Your task to perform on an android device: Open Reddit.com Image 0: 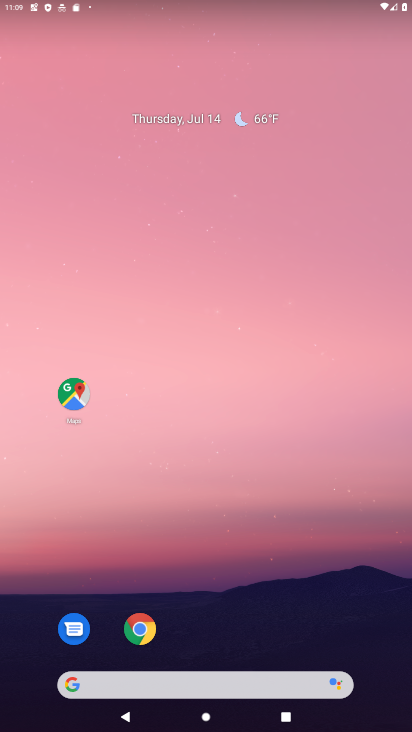
Step 0: click (70, 686)
Your task to perform on an android device: Open Reddit.com Image 1: 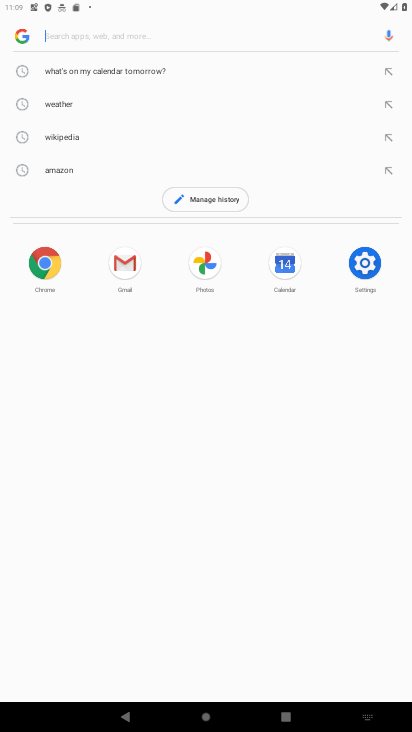
Step 1: type "Reddit.com"
Your task to perform on an android device: Open Reddit.com Image 2: 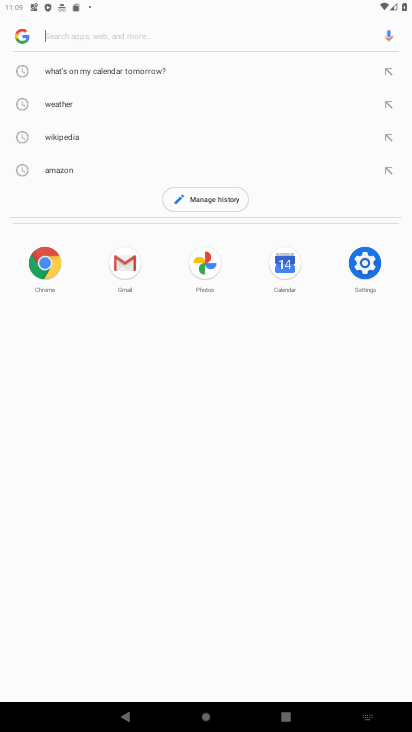
Step 2: click (79, 36)
Your task to perform on an android device: Open Reddit.com Image 3: 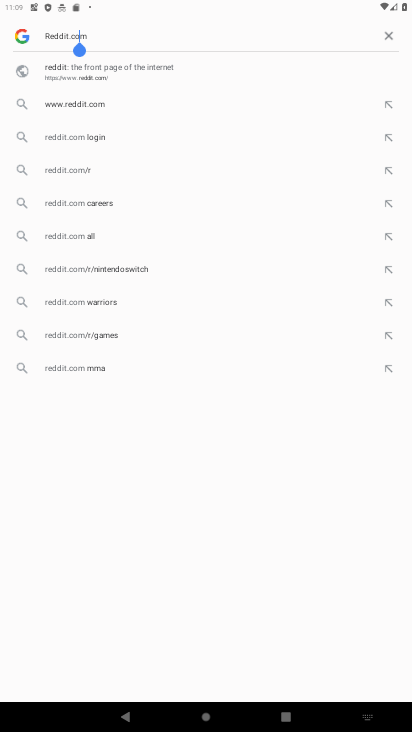
Step 3: press enter
Your task to perform on an android device: Open Reddit.com Image 4: 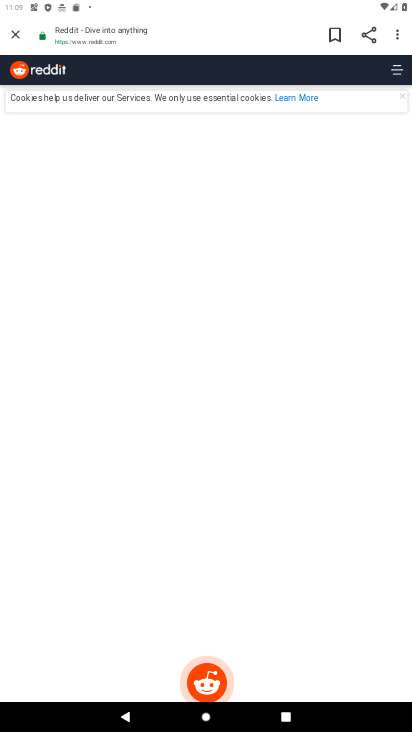
Step 4: task complete